Your task to perform on an android device: Go to Reddit.com Image 0: 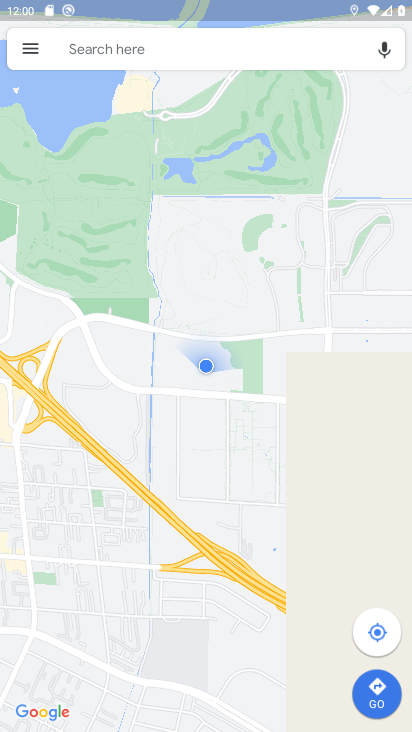
Step 0: press home button
Your task to perform on an android device: Go to Reddit.com Image 1: 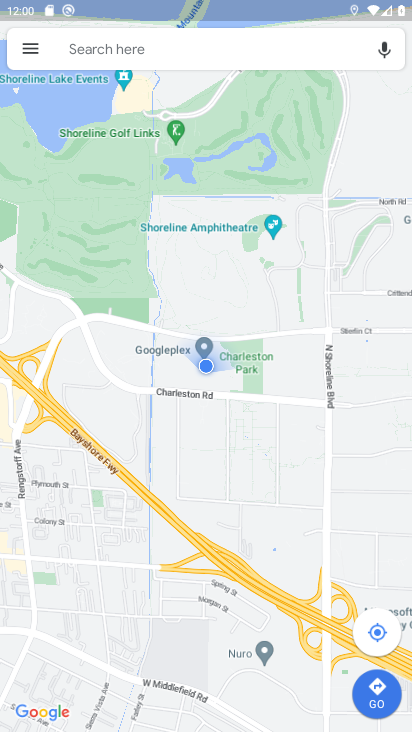
Step 1: drag from (227, 283) to (236, 64)
Your task to perform on an android device: Go to Reddit.com Image 2: 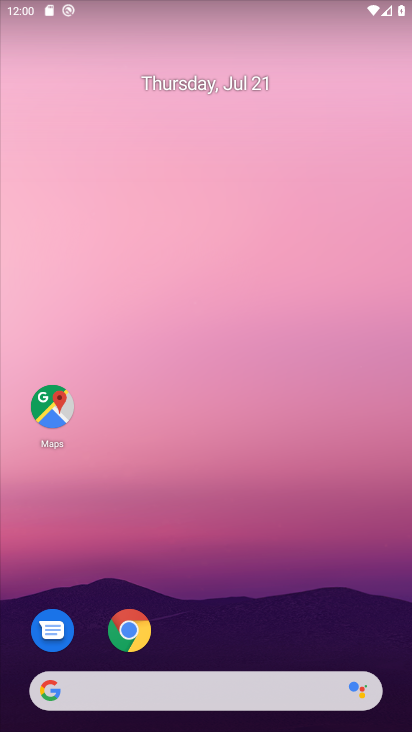
Step 2: drag from (217, 629) to (238, 238)
Your task to perform on an android device: Go to Reddit.com Image 3: 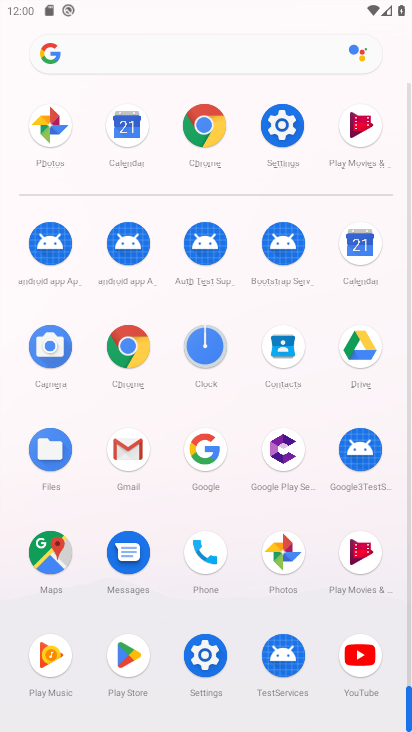
Step 3: click (131, 49)
Your task to perform on an android device: Go to Reddit.com Image 4: 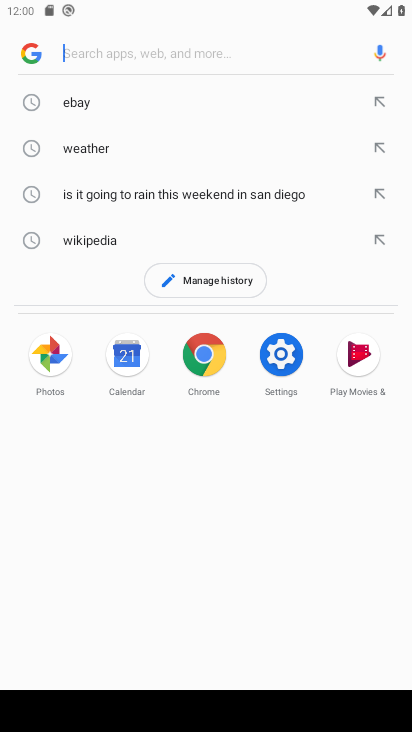
Step 4: type "Reddit.com"
Your task to perform on an android device: Go to Reddit.com Image 5: 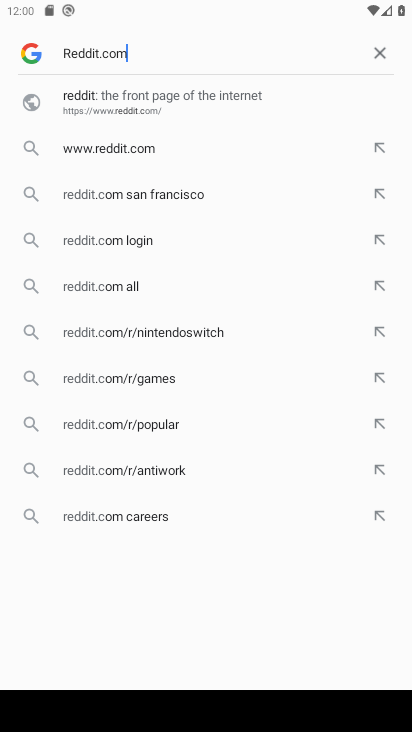
Step 5: type ""
Your task to perform on an android device: Go to Reddit.com Image 6: 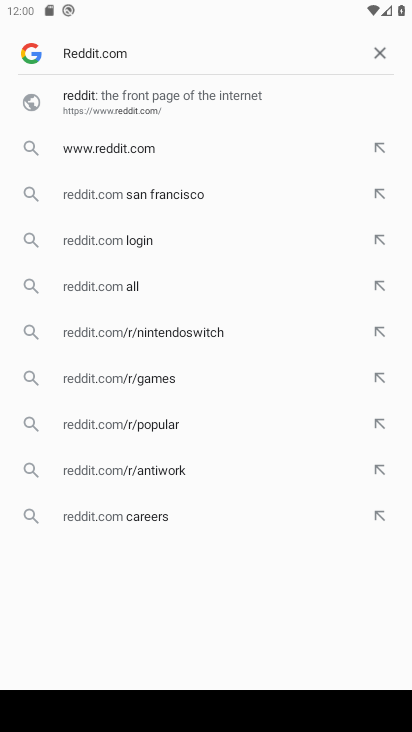
Step 6: click (128, 149)
Your task to perform on an android device: Go to Reddit.com Image 7: 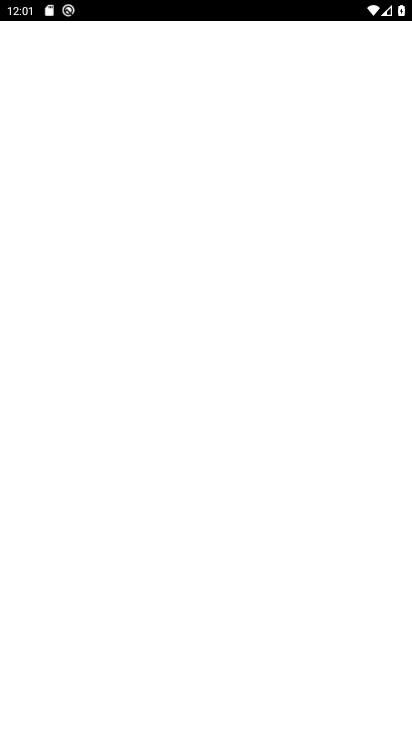
Step 7: task complete